Your task to perform on an android device: turn off location Image 0: 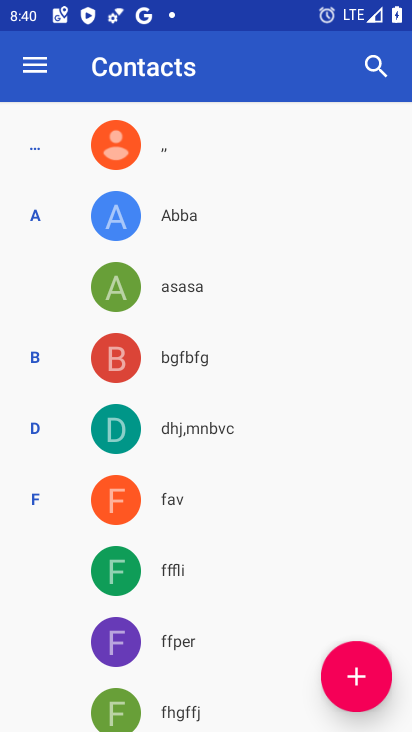
Step 0: press home button
Your task to perform on an android device: turn off location Image 1: 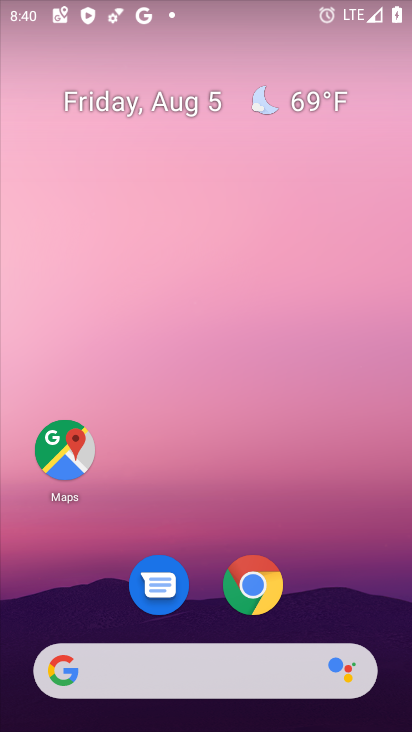
Step 1: drag from (326, 580) to (387, 5)
Your task to perform on an android device: turn off location Image 2: 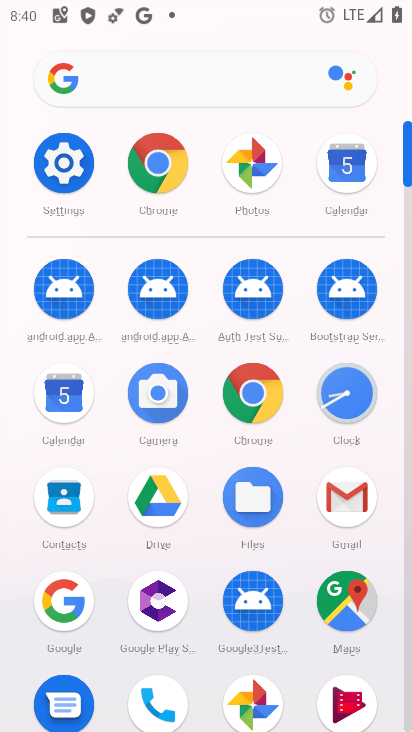
Step 2: click (64, 166)
Your task to perform on an android device: turn off location Image 3: 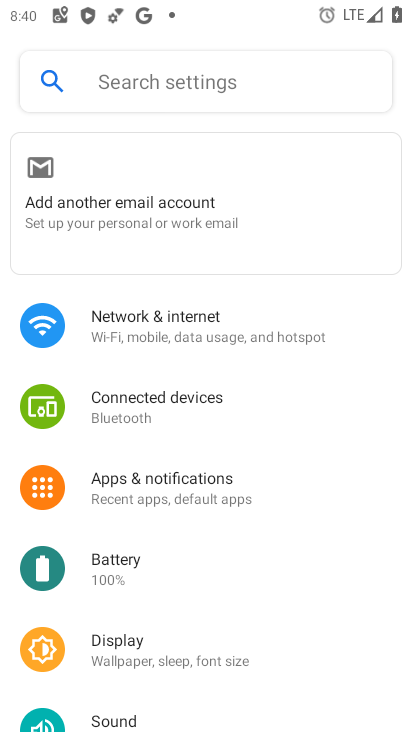
Step 3: drag from (185, 568) to (228, 108)
Your task to perform on an android device: turn off location Image 4: 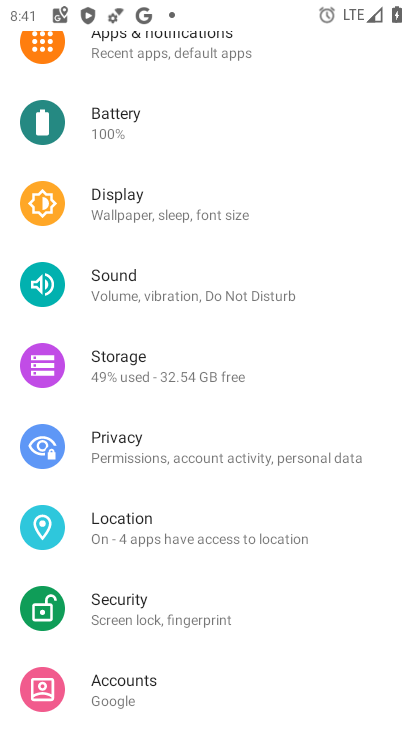
Step 4: click (203, 531)
Your task to perform on an android device: turn off location Image 5: 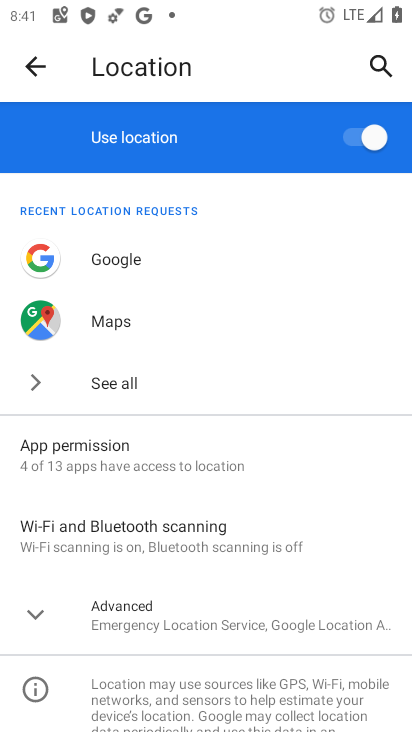
Step 5: click (347, 140)
Your task to perform on an android device: turn off location Image 6: 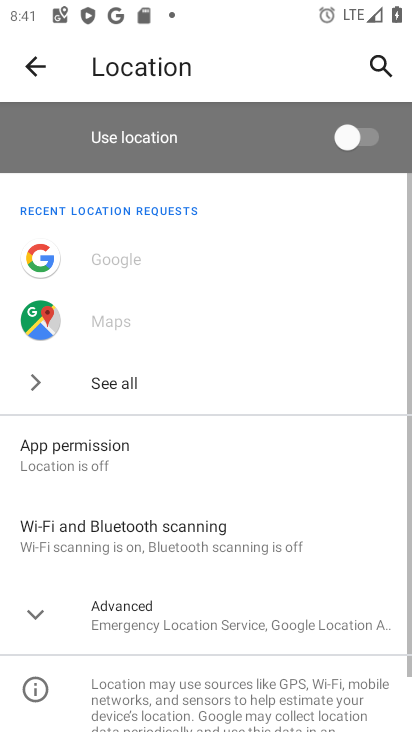
Step 6: task complete